Your task to perform on an android device: check out phone information Image 0: 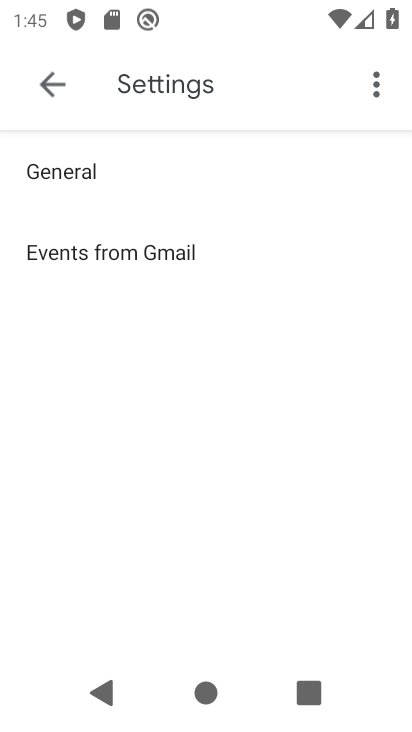
Step 0: press home button
Your task to perform on an android device: check out phone information Image 1: 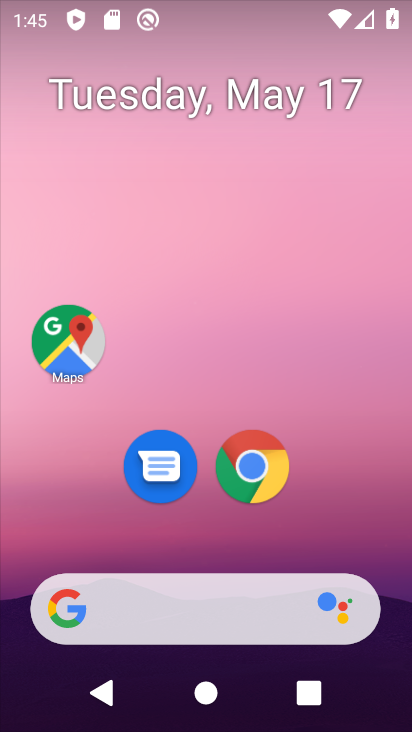
Step 1: drag from (102, 554) to (276, 0)
Your task to perform on an android device: check out phone information Image 2: 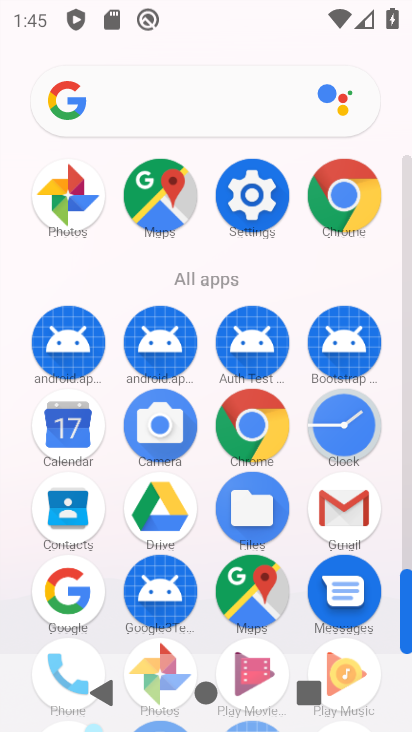
Step 2: drag from (253, 621) to (355, 259)
Your task to perform on an android device: check out phone information Image 3: 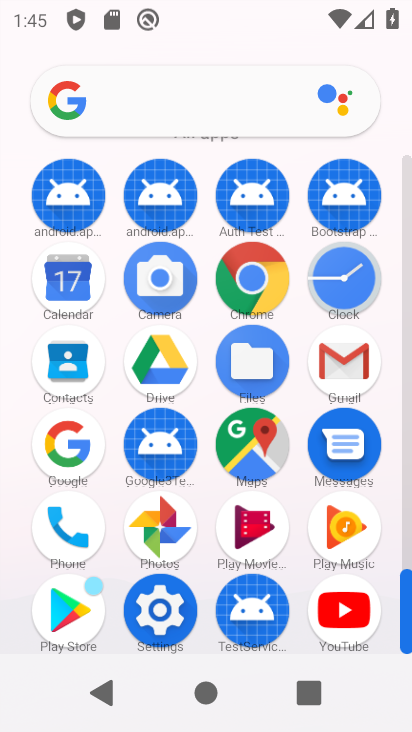
Step 3: click (157, 633)
Your task to perform on an android device: check out phone information Image 4: 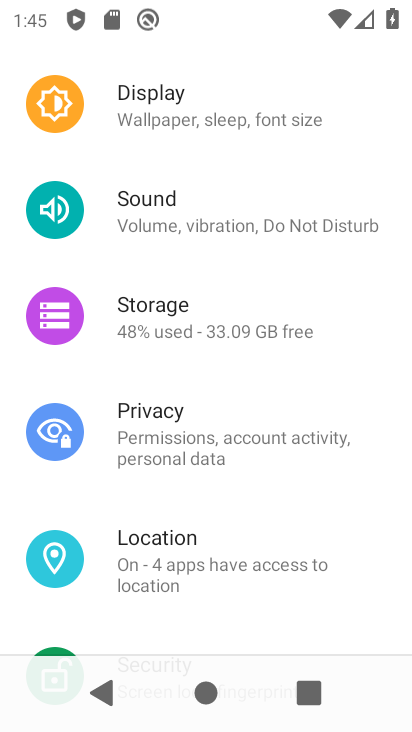
Step 4: drag from (179, 604) to (390, 54)
Your task to perform on an android device: check out phone information Image 5: 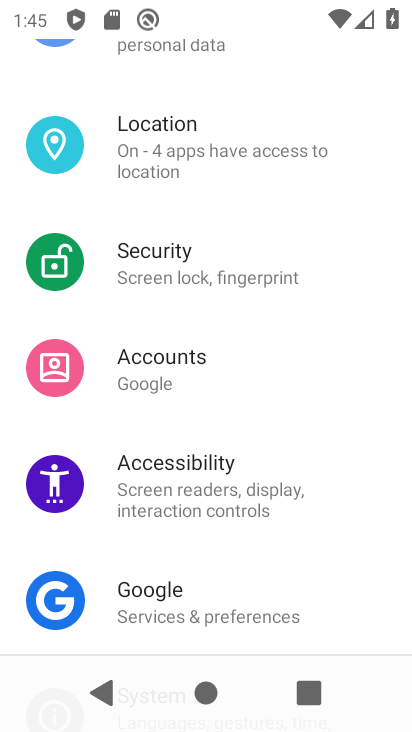
Step 5: drag from (242, 479) to (327, 130)
Your task to perform on an android device: check out phone information Image 6: 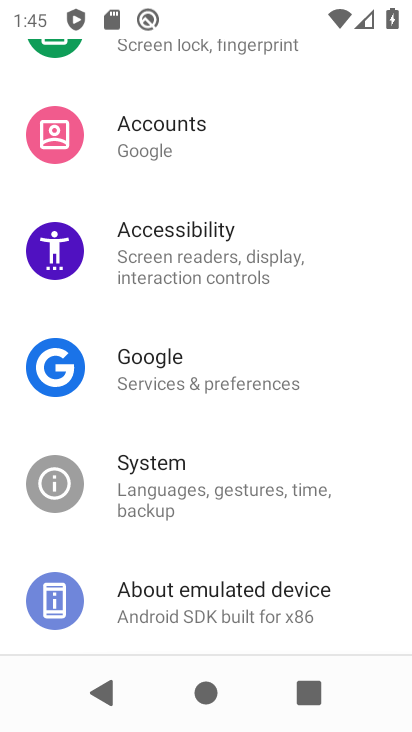
Step 6: click (308, 586)
Your task to perform on an android device: check out phone information Image 7: 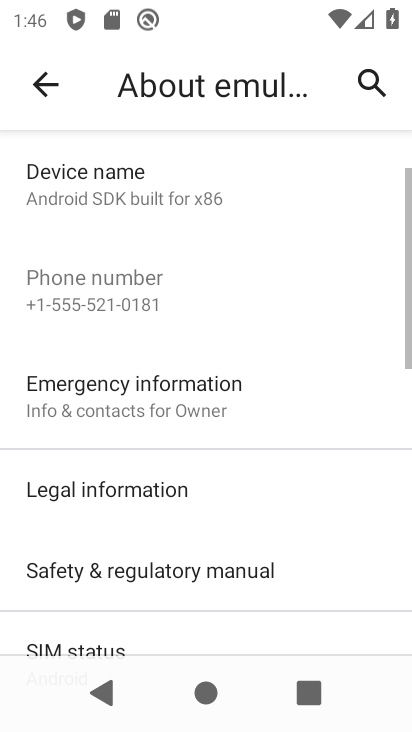
Step 7: task complete